Your task to perform on an android device: Find coffee shops on Maps Image 0: 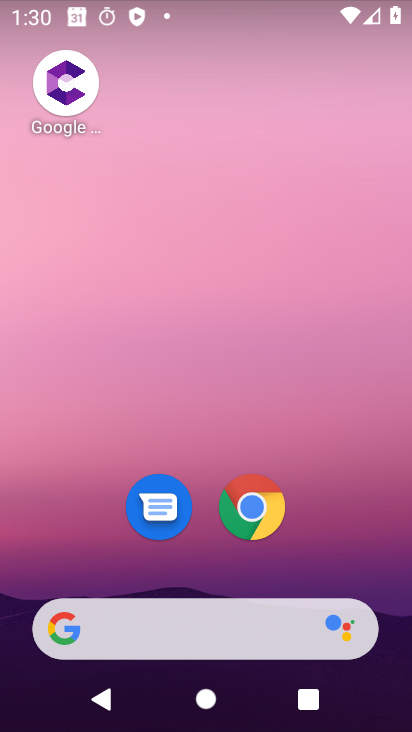
Step 0: drag from (19, 390) to (404, 356)
Your task to perform on an android device: Find coffee shops on Maps Image 1: 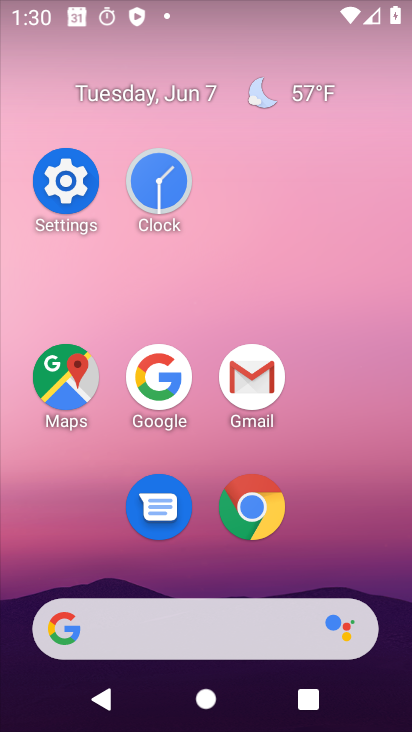
Step 1: click (50, 387)
Your task to perform on an android device: Find coffee shops on Maps Image 2: 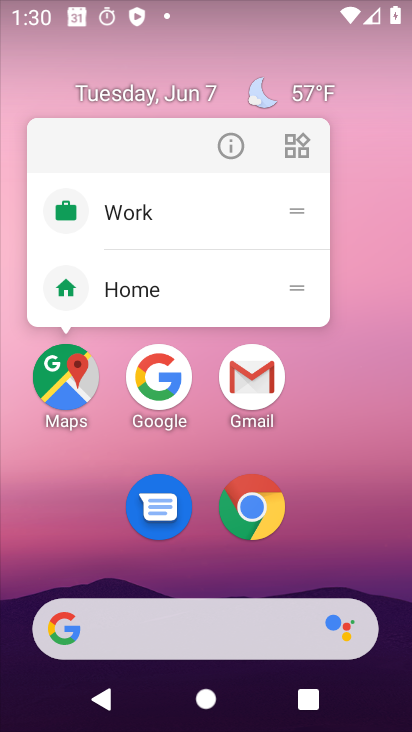
Step 2: click (77, 377)
Your task to perform on an android device: Find coffee shops on Maps Image 3: 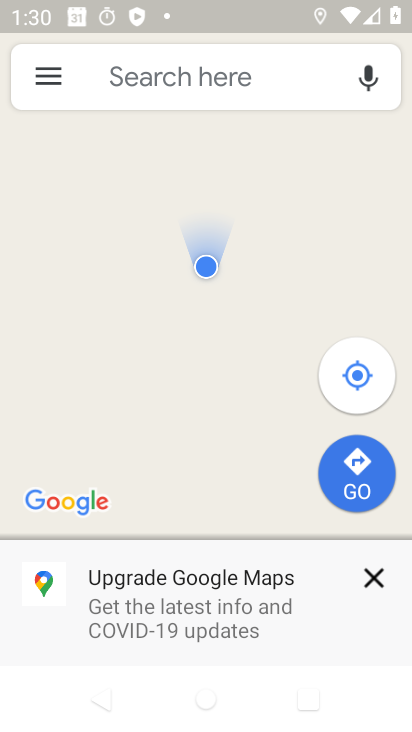
Step 3: click (225, 76)
Your task to perform on an android device: Find coffee shops on Maps Image 4: 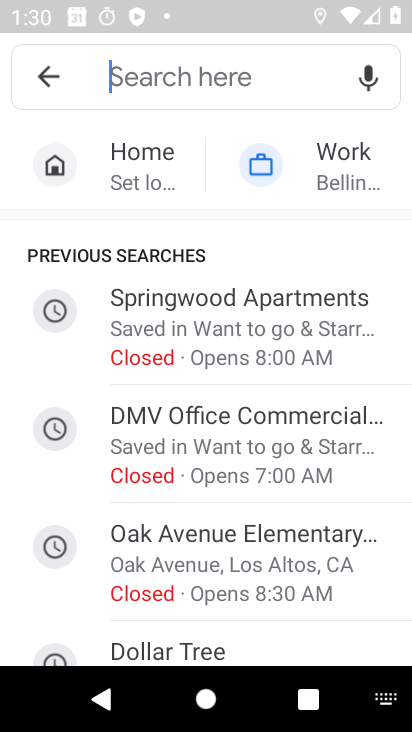
Step 4: type "coffee shops"
Your task to perform on an android device: Find coffee shops on Maps Image 5: 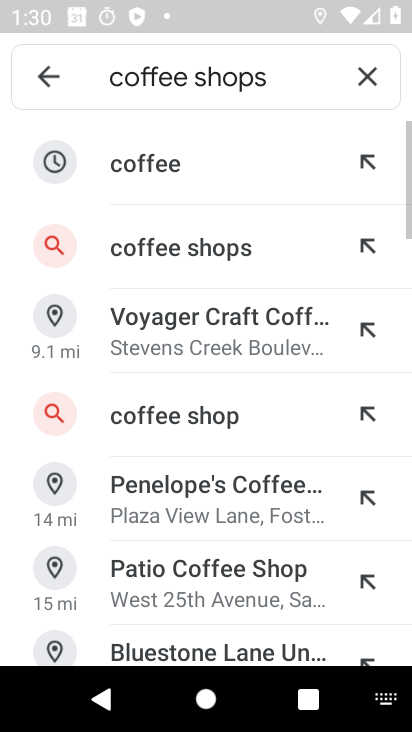
Step 5: task complete